Your task to perform on an android device: add a contact Image 0: 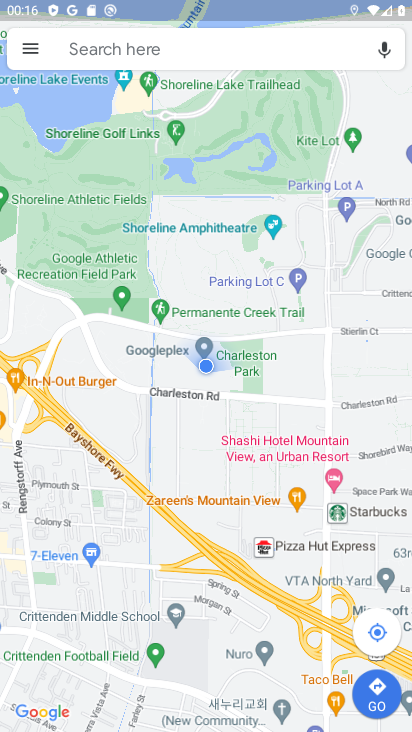
Step 0: press home button
Your task to perform on an android device: add a contact Image 1: 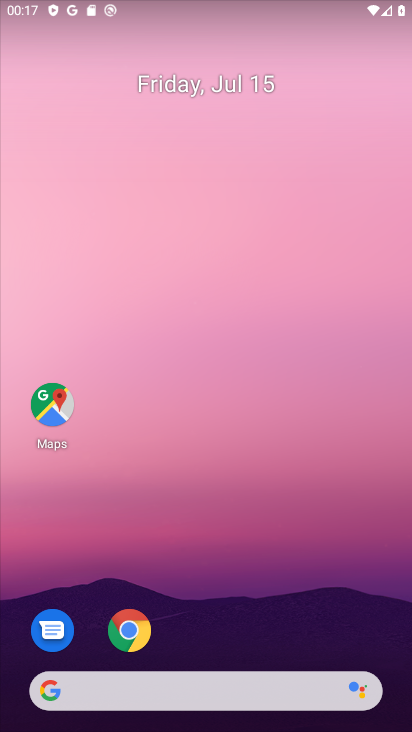
Step 1: drag from (273, 630) to (268, 135)
Your task to perform on an android device: add a contact Image 2: 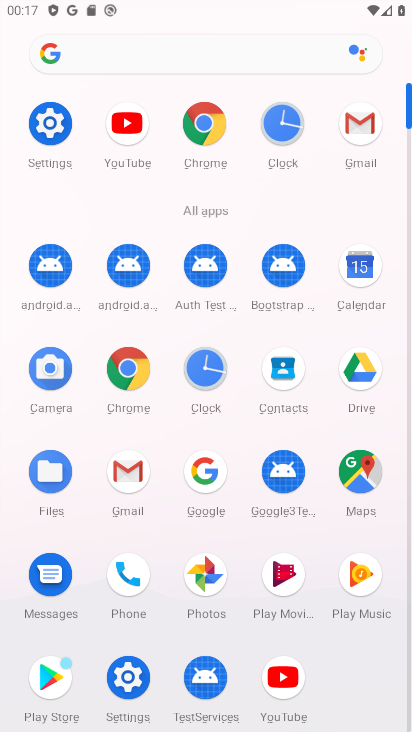
Step 2: click (69, 163)
Your task to perform on an android device: add a contact Image 3: 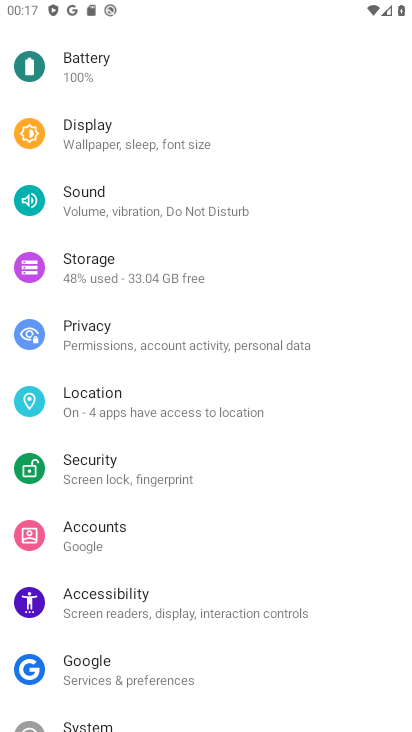
Step 3: task complete